Your task to perform on an android device: Open network settings Image 0: 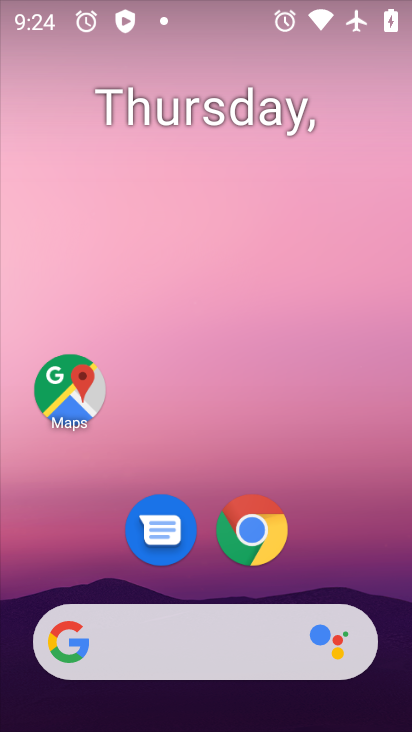
Step 0: drag from (351, 559) to (300, 11)
Your task to perform on an android device: Open network settings Image 1: 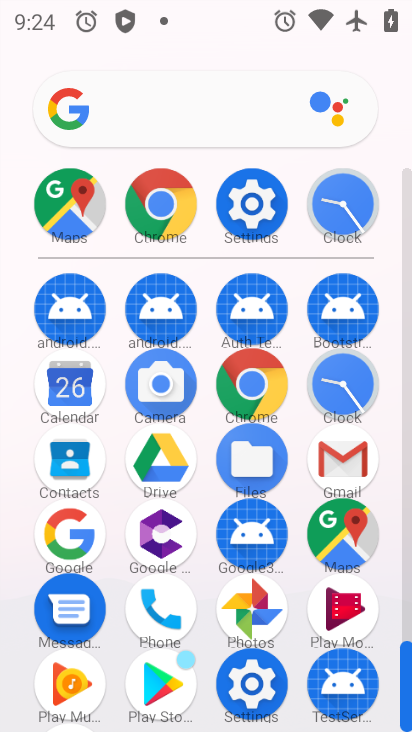
Step 1: drag from (0, 517) to (22, 228)
Your task to perform on an android device: Open network settings Image 2: 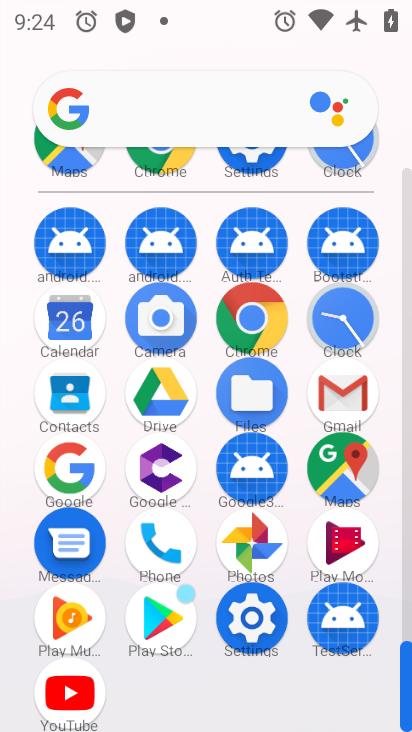
Step 2: click (250, 616)
Your task to perform on an android device: Open network settings Image 3: 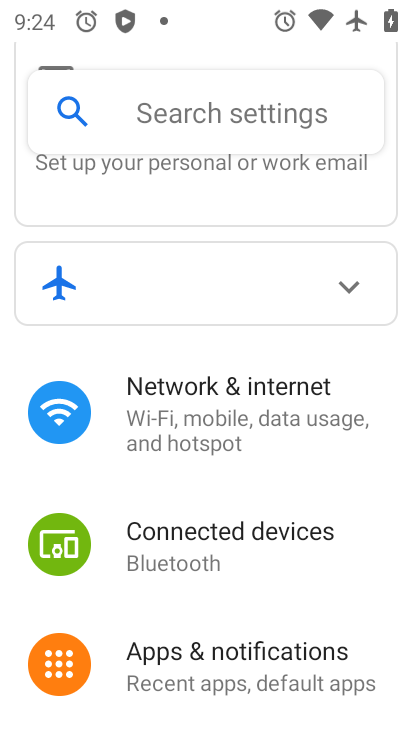
Step 3: click (256, 415)
Your task to perform on an android device: Open network settings Image 4: 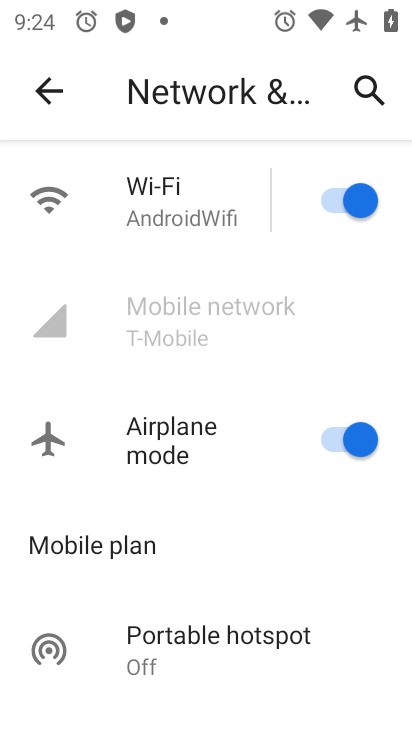
Step 4: drag from (196, 519) to (212, 165)
Your task to perform on an android device: Open network settings Image 5: 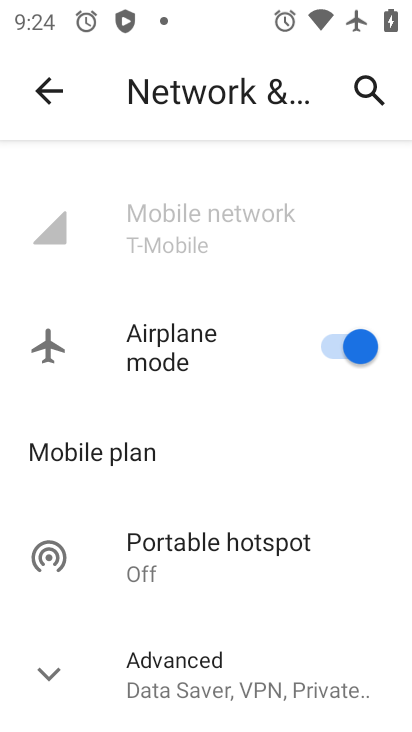
Step 5: drag from (192, 538) to (217, 213)
Your task to perform on an android device: Open network settings Image 6: 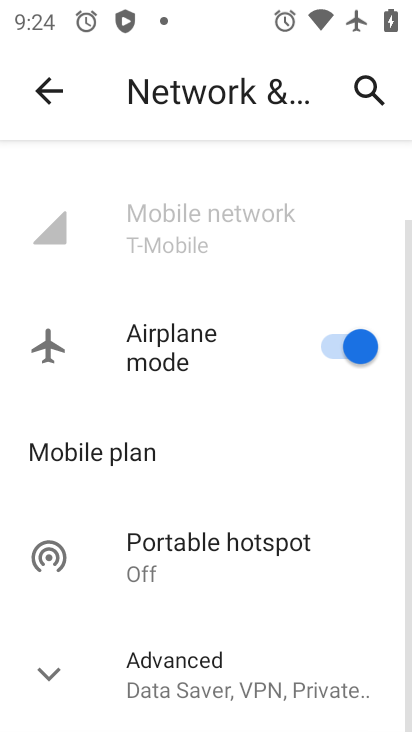
Step 6: click (42, 663)
Your task to perform on an android device: Open network settings Image 7: 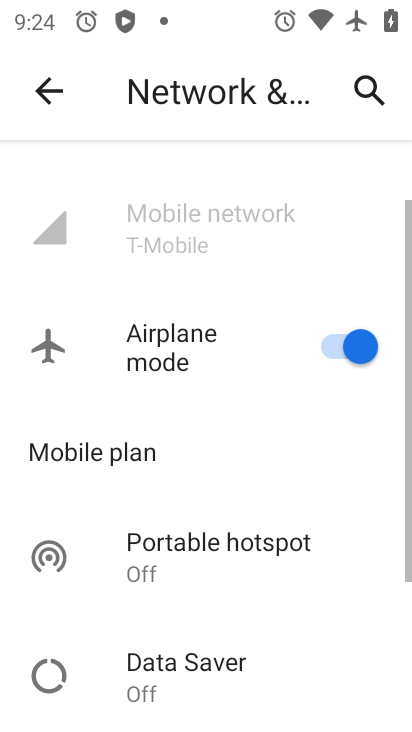
Step 7: task complete